Your task to perform on an android device: Clear all items from cart on newegg. Add "dell xps" to the cart on newegg, then select checkout. Image 0: 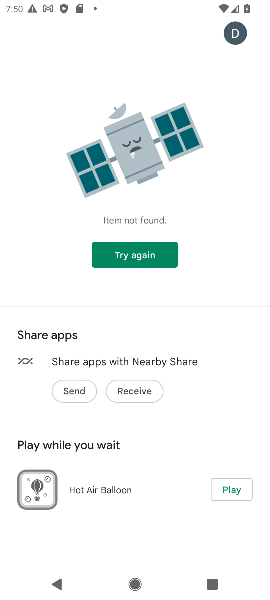
Step 0: press home button
Your task to perform on an android device: Clear all items from cart on newegg. Add "dell xps" to the cart on newegg, then select checkout. Image 1: 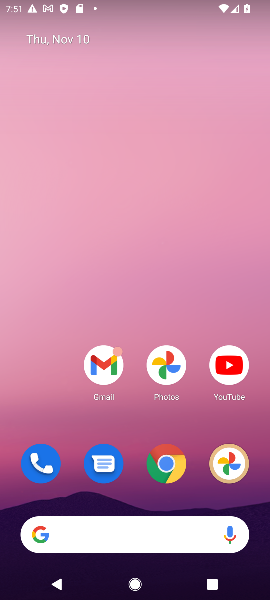
Step 1: click (162, 469)
Your task to perform on an android device: Clear all items from cart on newegg. Add "dell xps" to the cart on newegg, then select checkout. Image 2: 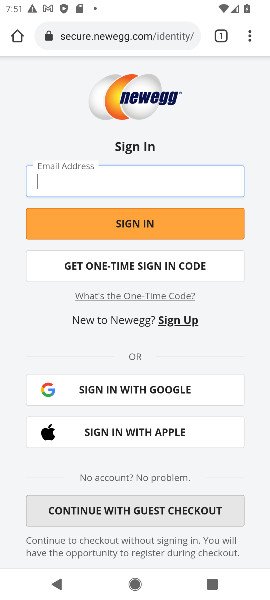
Step 2: press back button
Your task to perform on an android device: Clear all items from cart on newegg. Add "dell xps" to the cart on newegg, then select checkout. Image 3: 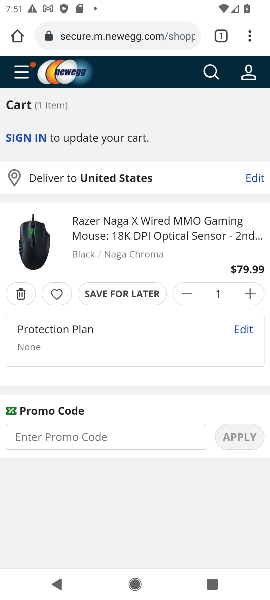
Step 3: click (208, 71)
Your task to perform on an android device: Clear all items from cart on newegg. Add "dell xps" to the cart on newegg, then select checkout. Image 4: 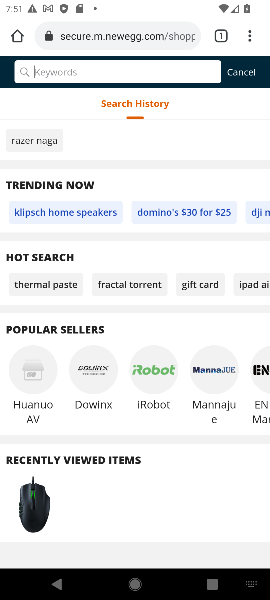
Step 4: click (85, 74)
Your task to perform on an android device: Clear all items from cart on newegg. Add "dell xps" to the cart on newegg, then select checkout. Image 5: 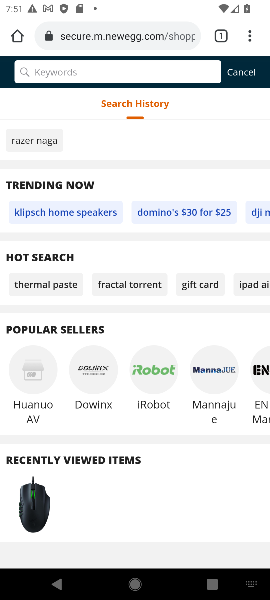
Step 5: type "dell xps"
Your task to perform on an android device: Clear all items from cart on newegg. Add "dell xps" to the cart on newegg, then select checkout. Image 6: 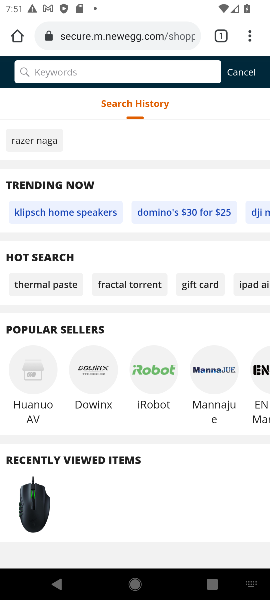
Step 6: press enter
Your task to perform on an android device: Clear all items from cart on newegg. Add "dell xps" to the cart on newegg, then select checkout. Image 7: 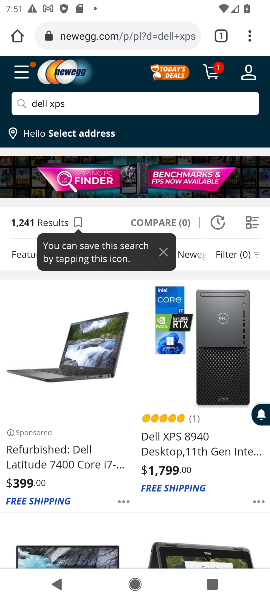
Step 7: drag from (112, 498) to (163, 378)
Your task to perform on an android device: Clear all items from cart on newegg. Add "dell xps" to the cart on newegg, then select checkout. Image 8: 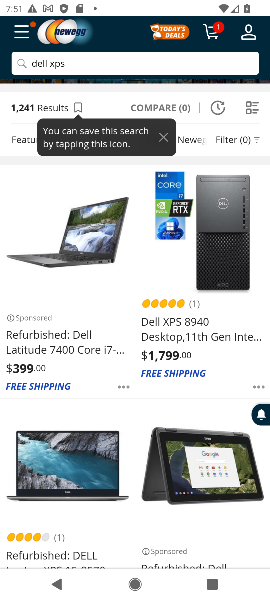
Step 8: click (179, 328)
Your task to perform on an android device: Clear all items from cart on newegg. Add "dell xps" to the cart on newegg, then select checkout. Image 9: 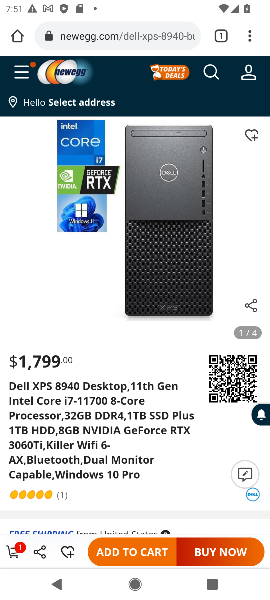
Step 9: click (134, 553)
Your task to perform on an android device: Clear all items from cart on newegg. Add "dell xps" to the cart on newegg, then select checkout. Image 10: 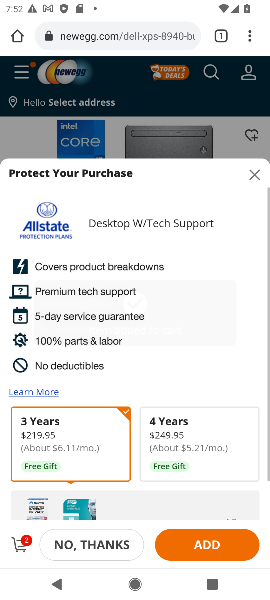
Step 10: click (24, 546)
Your task to perform on an android device: Clear all items from cart on newegg. Add "dell xps" to the cart on newegg, then select checkout. Image 11: 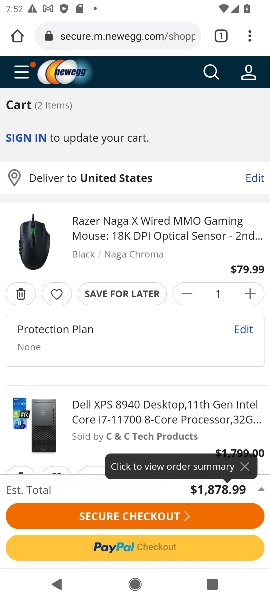
Step 11: click (21, 293)
Your task to perform on an android device: Clear all items from cart on newegg. Add "dell xps" to the cart on newegg, then select checkout. Image 12: 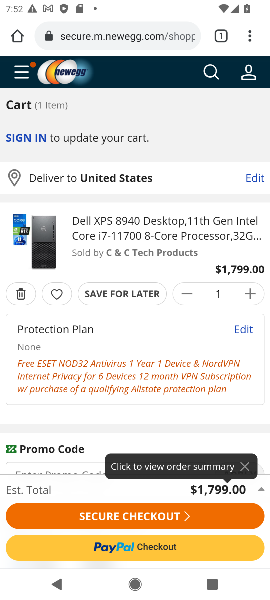
Step 12: click (178, 514)
Your task to perform on an android device: Clear all items from cart on newegg. Add "dell xps" to the cart on newegg, then select checkout. Image 13: 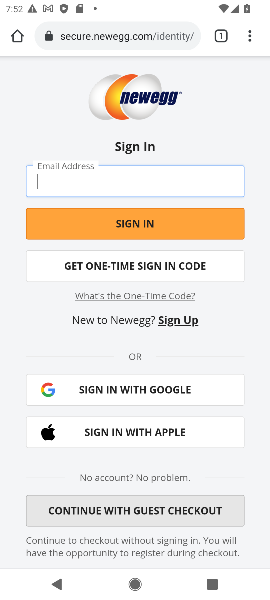
Step 13: task complete